Your task to perform on an android device: clear history in the chrome app Image 0: 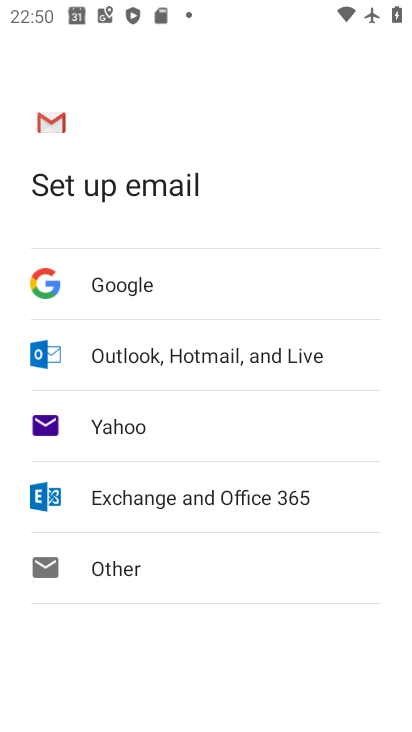
Step 0: press home button
Your task to perform on an android device: clear history in the chrome app Image 1: 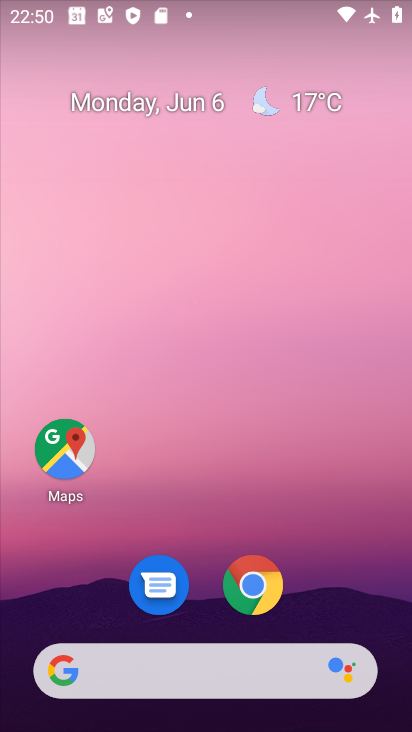
Step 1: click (266, 579)
Your task to perform on an android device: clear history in the chrome app Image 2: 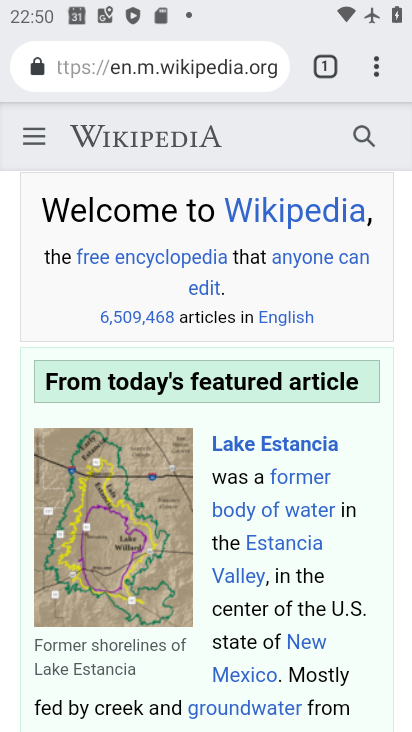
Step 2: click (377, 71)
Your task to perform on an android device: clear history in the chrome app Image 3: 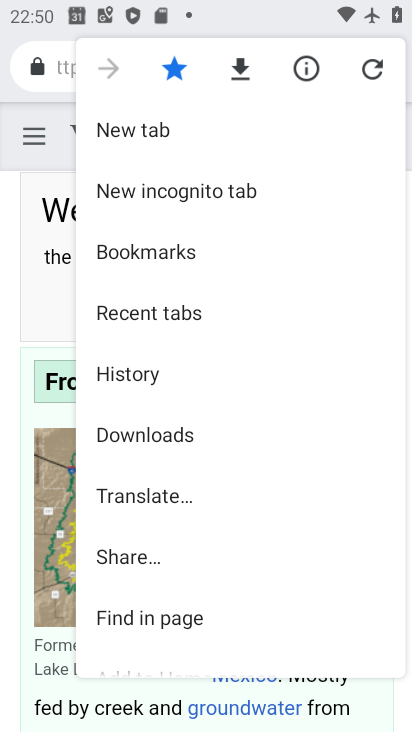
Step 3: click (165, 375)
Your task to perform on an android device: clear history in the chrome app Image 4: 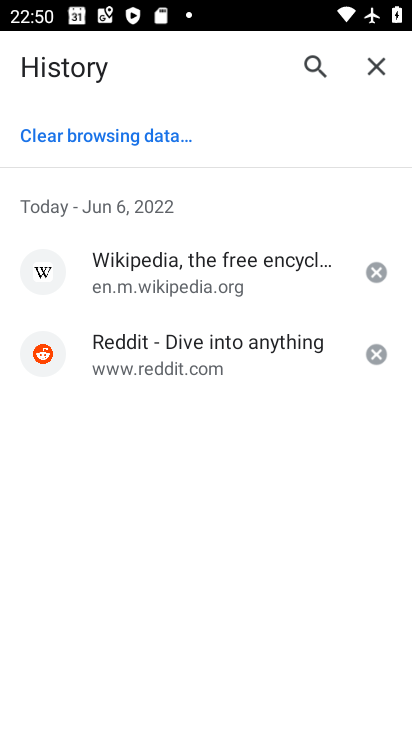
Step 4: click (151, 130)
Your task to perform on an android device: clear history in the chrome app Image 5: 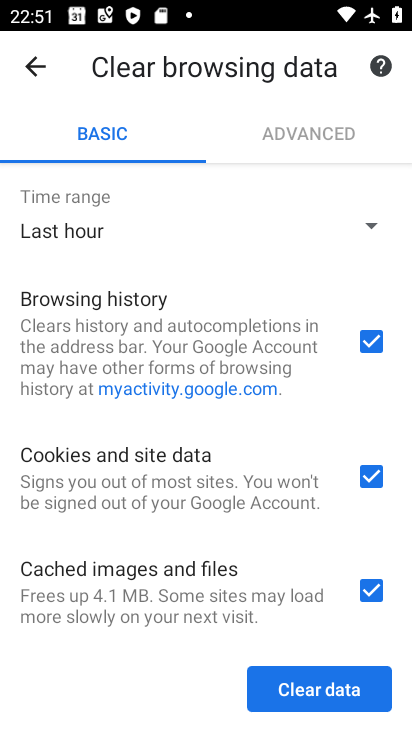
Step 5: task complete